Your task to perform on an android device: Open Wikipedia Image 0: 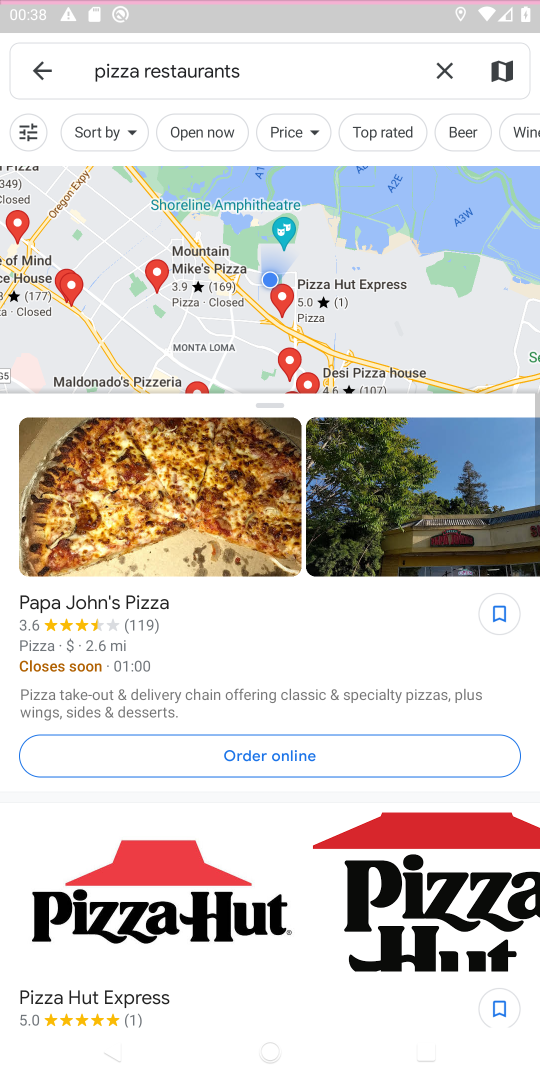
Step 0: press home button
Your task to perform on an android device: Open Wikipedia Image 1: 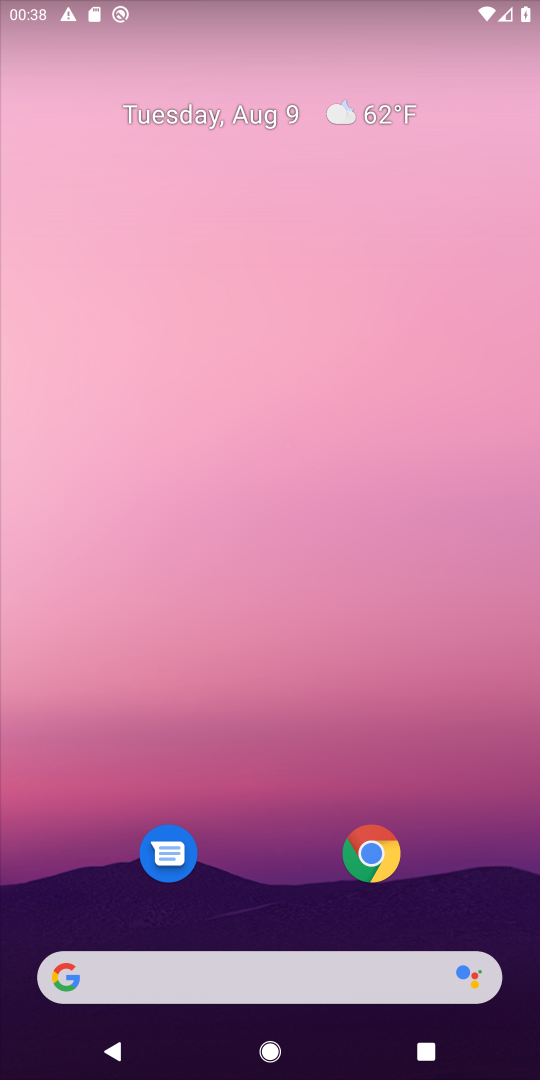
Step 1: click (371, 837)
Your task to perform on an android device: Open Wikipedia Image 2: 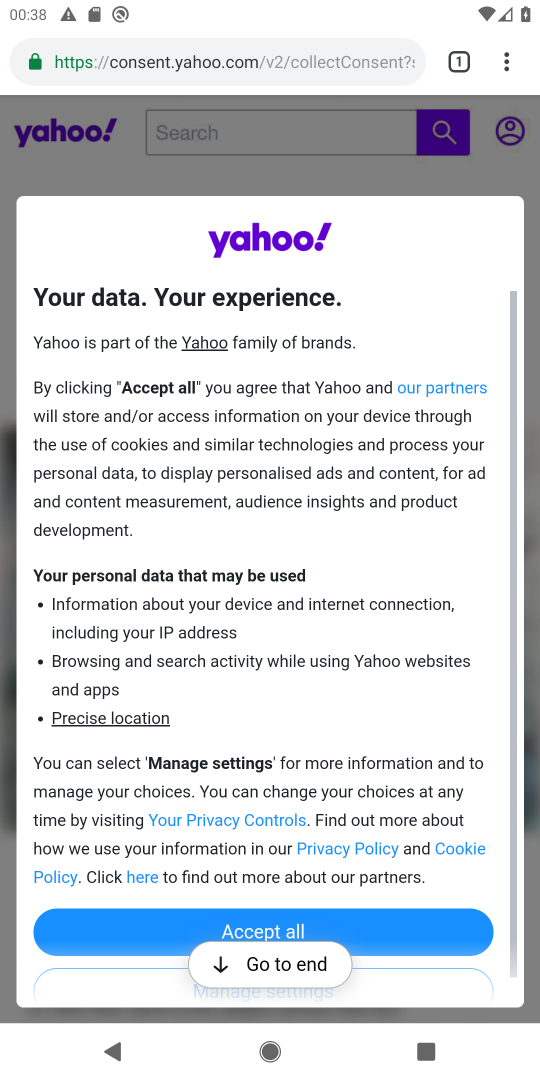
Step 2: click (264, 59)
Your task to perform on an android device: Open Wikipedia Image 3: 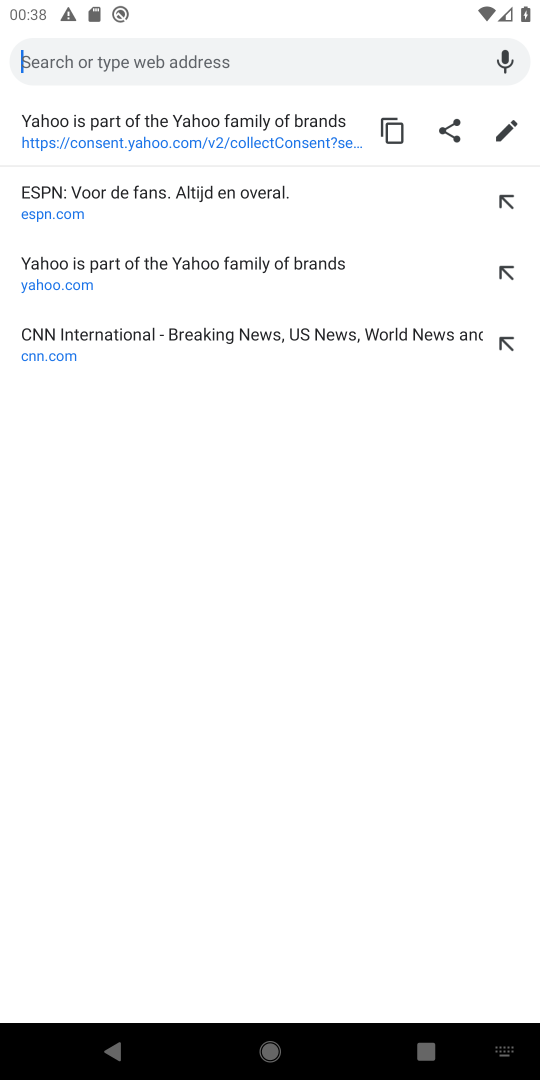
Step 3: type "wikipedia"
Your task to perform on an android device: Open Wikipedia Image 4: 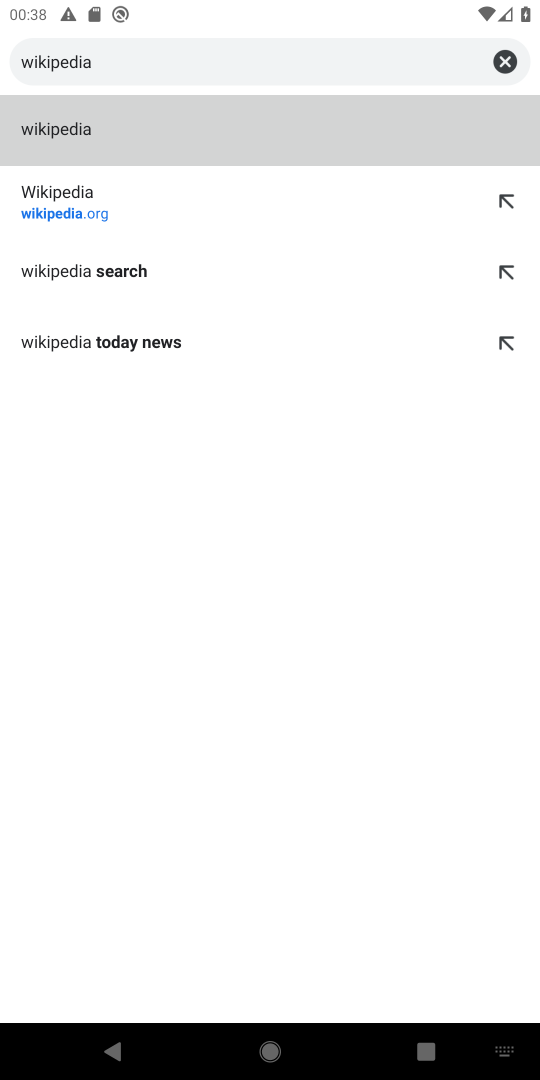
Step 4: click (73, 148)
Your task to perform on an android device: Open Wikipedia Image 5: 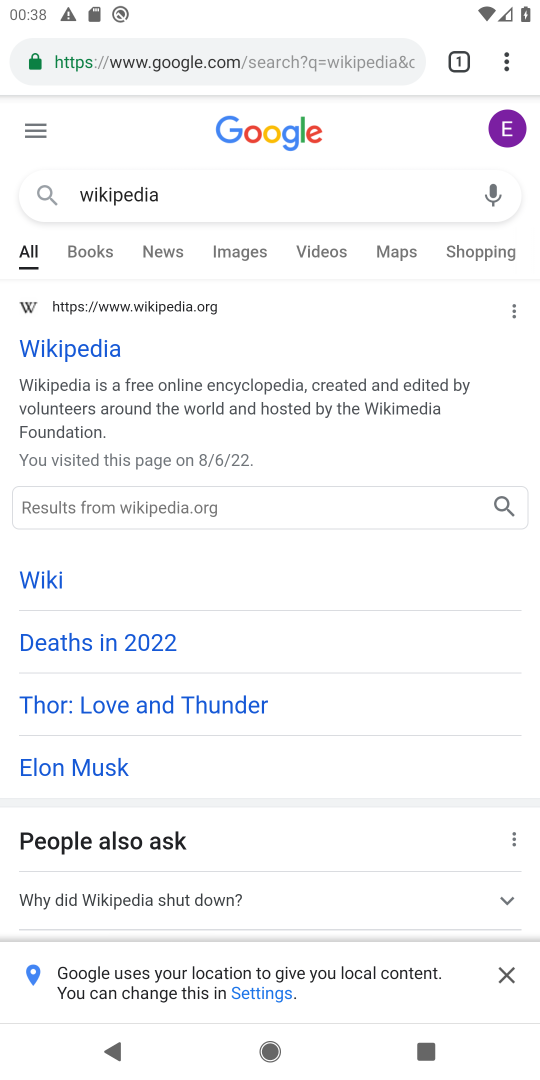
Step 5: click (60, 343)
Your task to perform on an android device: Open Wikipedia Image 6: 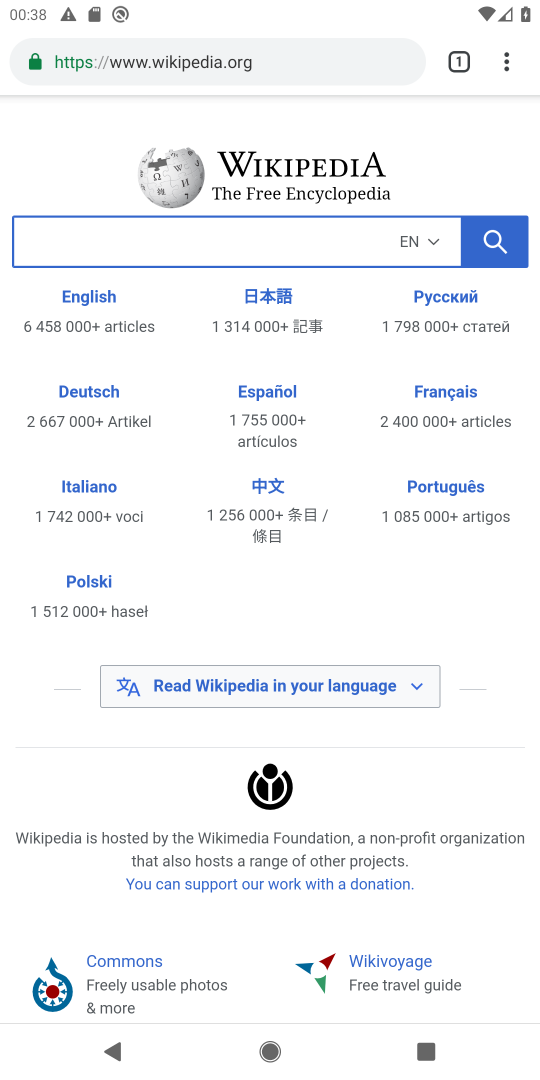
Step 6: task complete